Your task to perform on an android device: Go to Google maps Image 0: 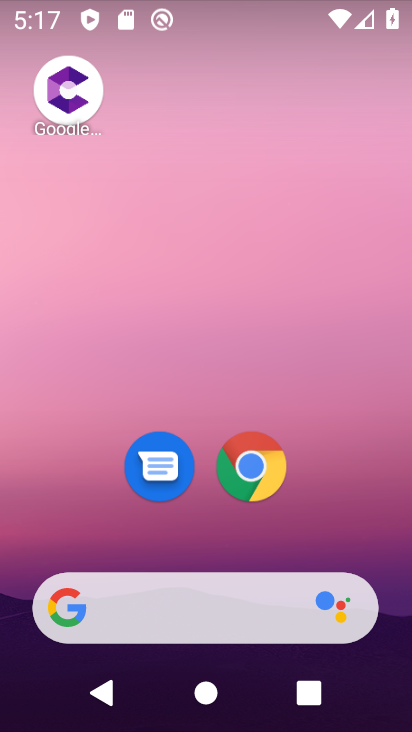
Step 0: drag from (334, 427) to (361, 68)
Your task to perform on an android device: Go to Google maps Image 1: 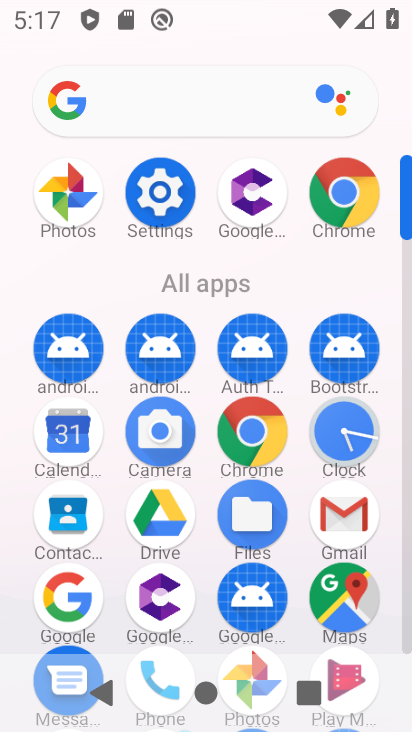
Step 1: click (324, 583)
Your task to perform on an android device: Go to Google maps Image 2: 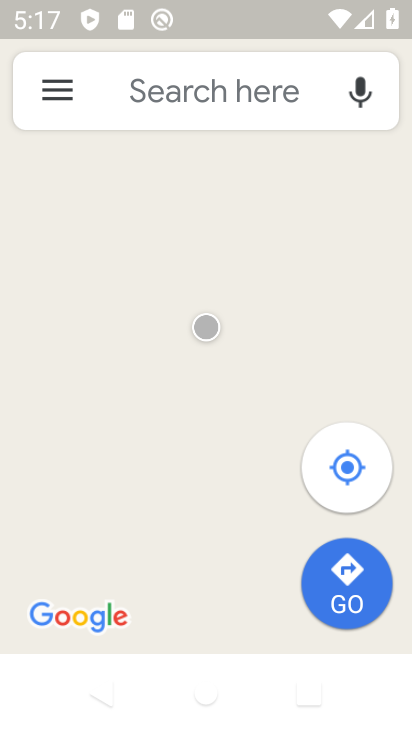
Step 2: task complete